Your task to perform on an android device: Go to sound settings Image 0: 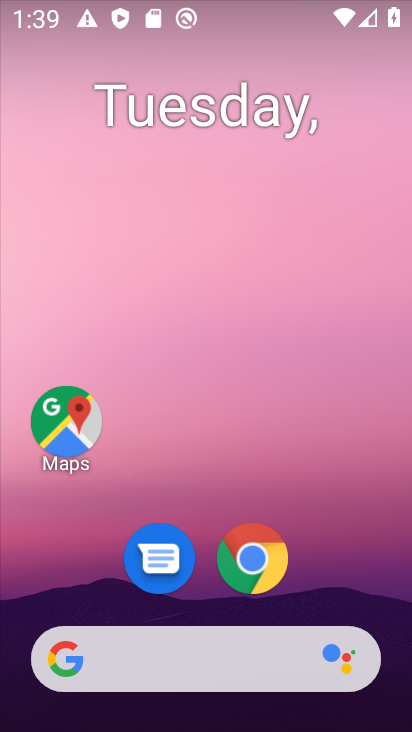
Step 0: drag from (212, 482) to (218, 184)
Your task to perform on an android device: Go to sound settings Image 1: 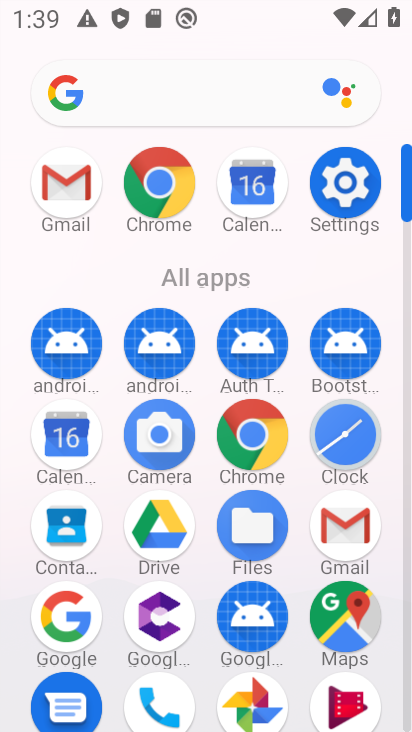
Step 1: click (369, 209)
Your task to perform on an android device: Go to sound settings Image 2: 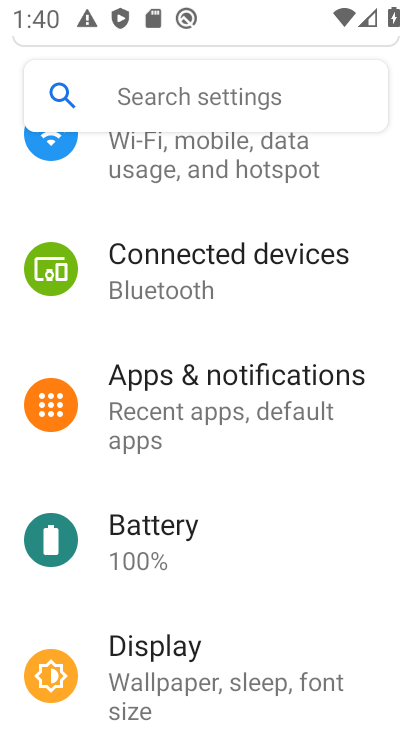
Step 2: drag from (211, 555) to (186, 199)
Your task to perform on an android device: Go to sound settings Image 3: 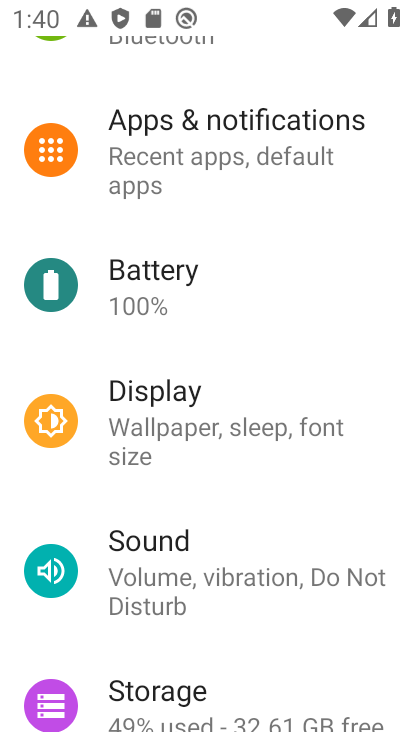
Step 3: click (136, 556)
Your task to perform on an android device: Go to sound settings Image 4: 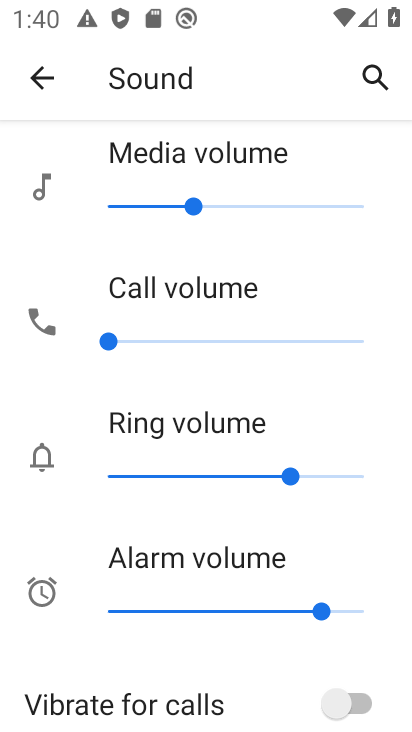
Step 4: task complete